Your task to perform on an android device: turn notification dots off Image 0: 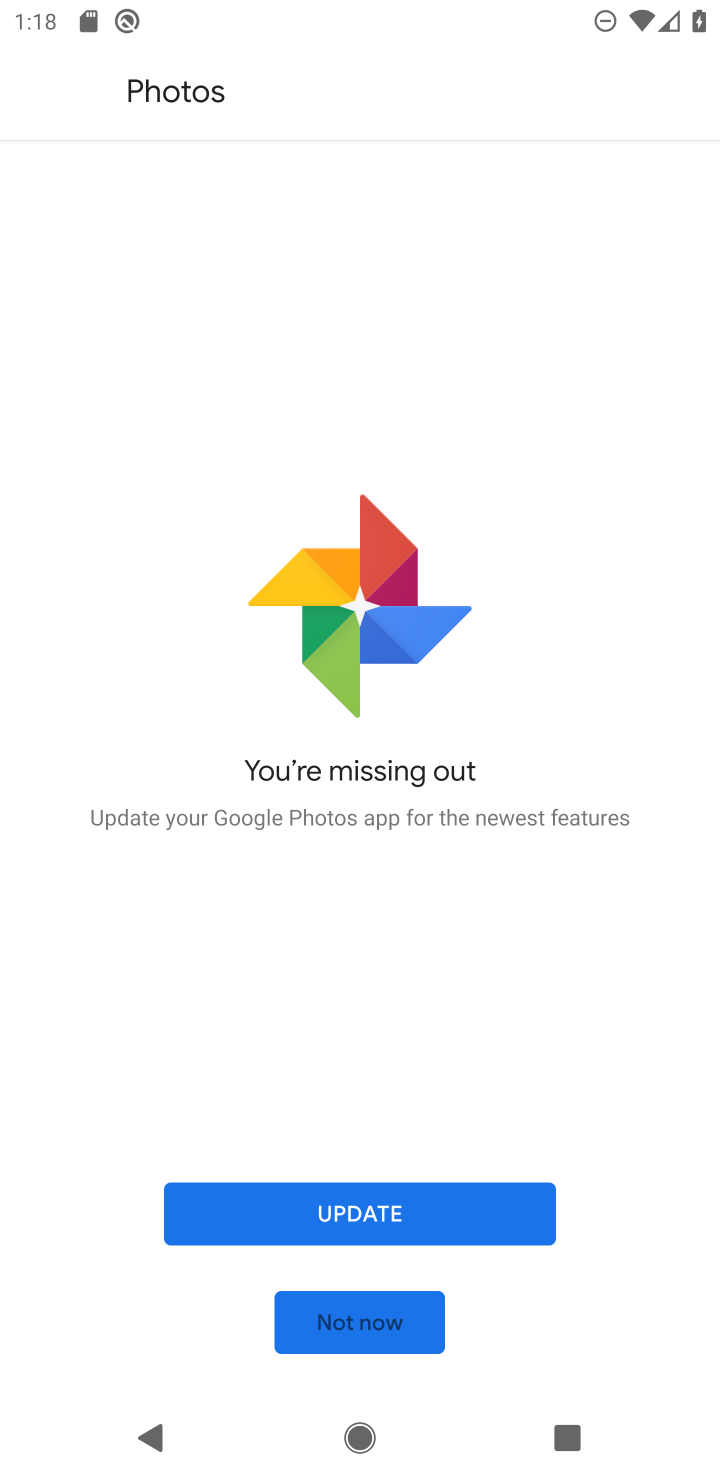
Step 0: press home button
Your task to perform on an android device: turn notification dots off Image 1: 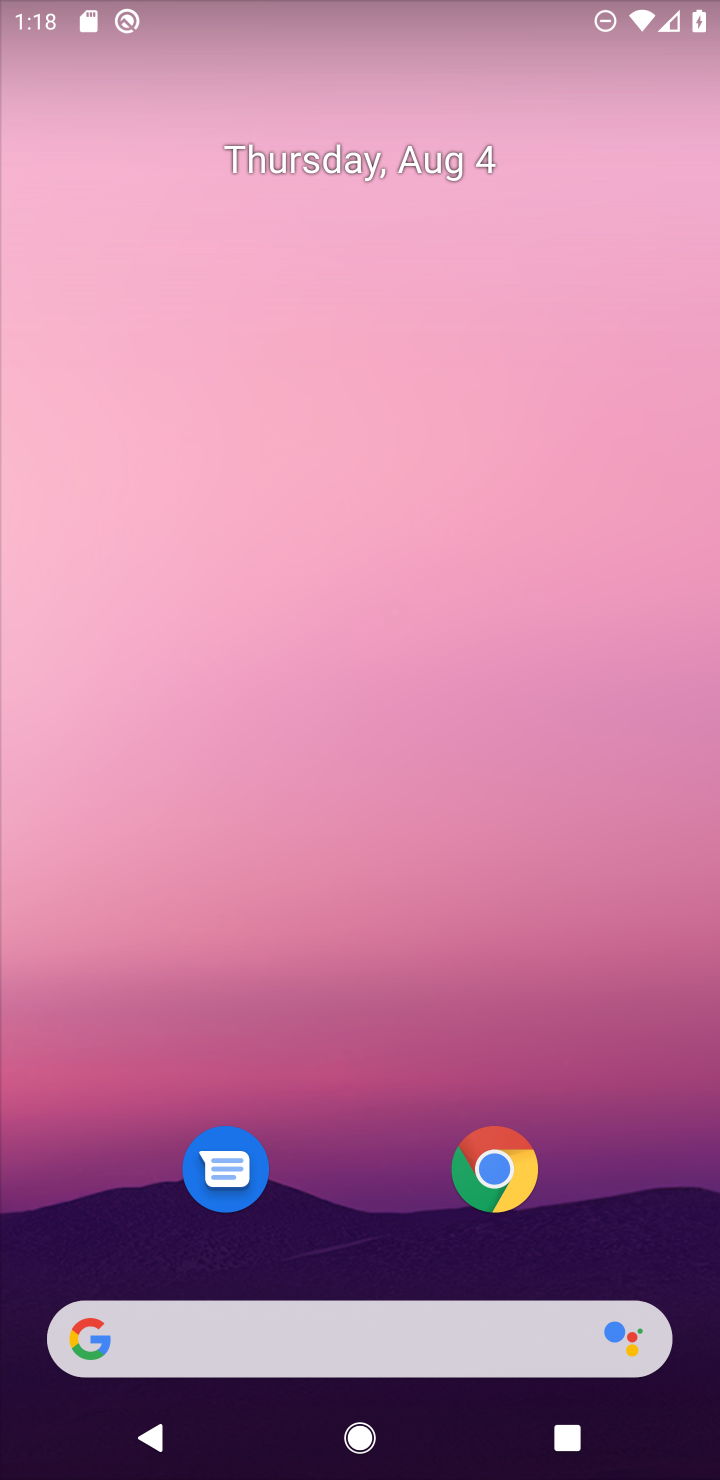
Step 1: drag from (381, 1161) to (431, 44)
Your task to perform on an android device: turn notification dots off Image 2: 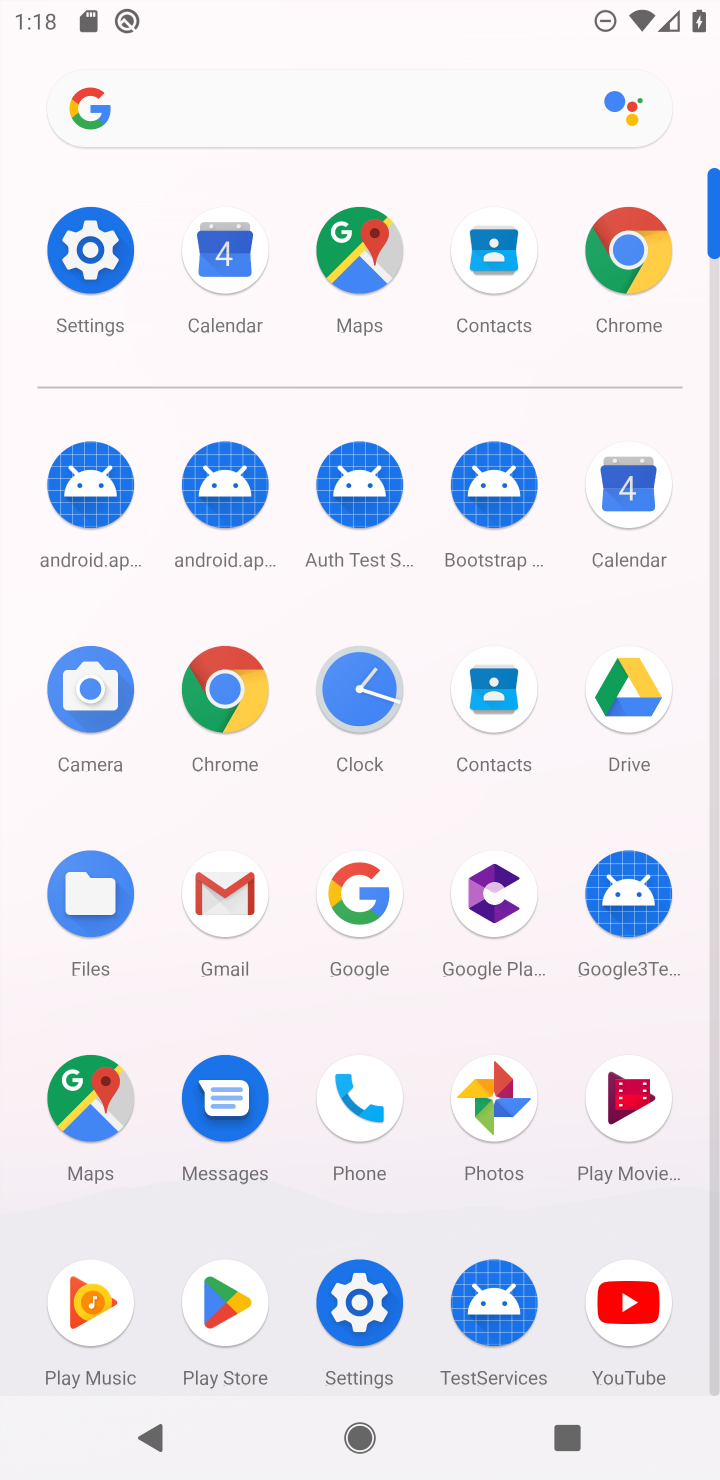
Step 2: click (93, 257)
Your task to perform on an android device: turn notification dots off Image 3: 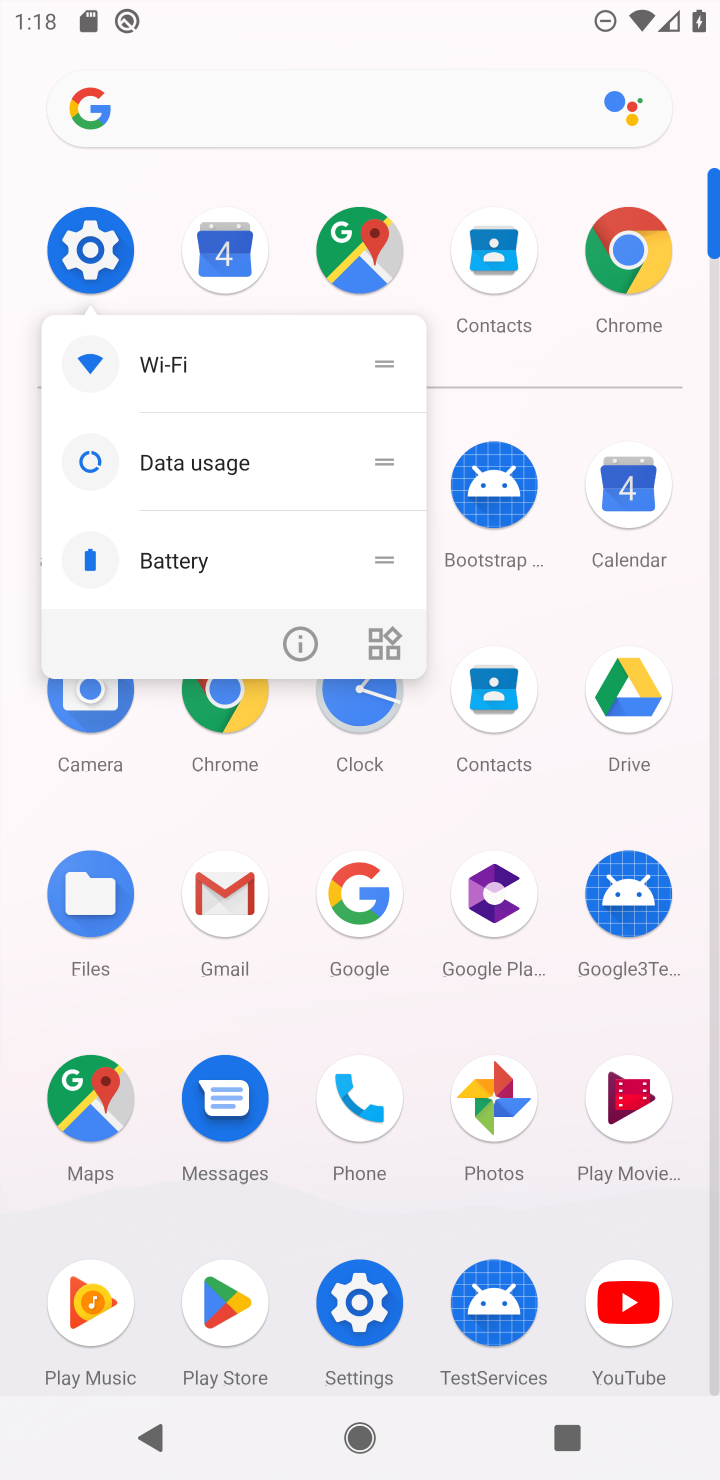
Step 3: click (93, 257)
Your task to perform on an android device: turn notification dots off Image 4: 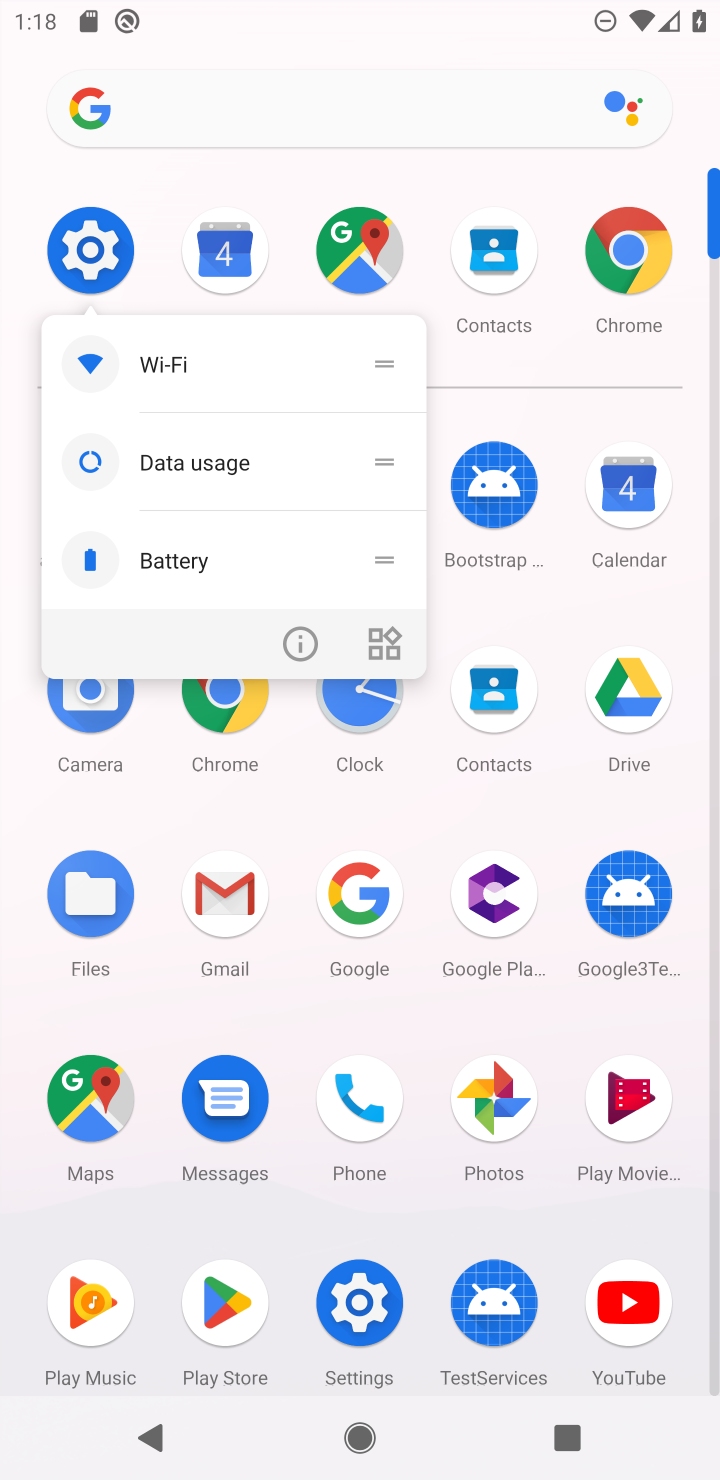
Step 4: click (93, 257)
Your task to perform on an android device: turn notification dots off Image 5: 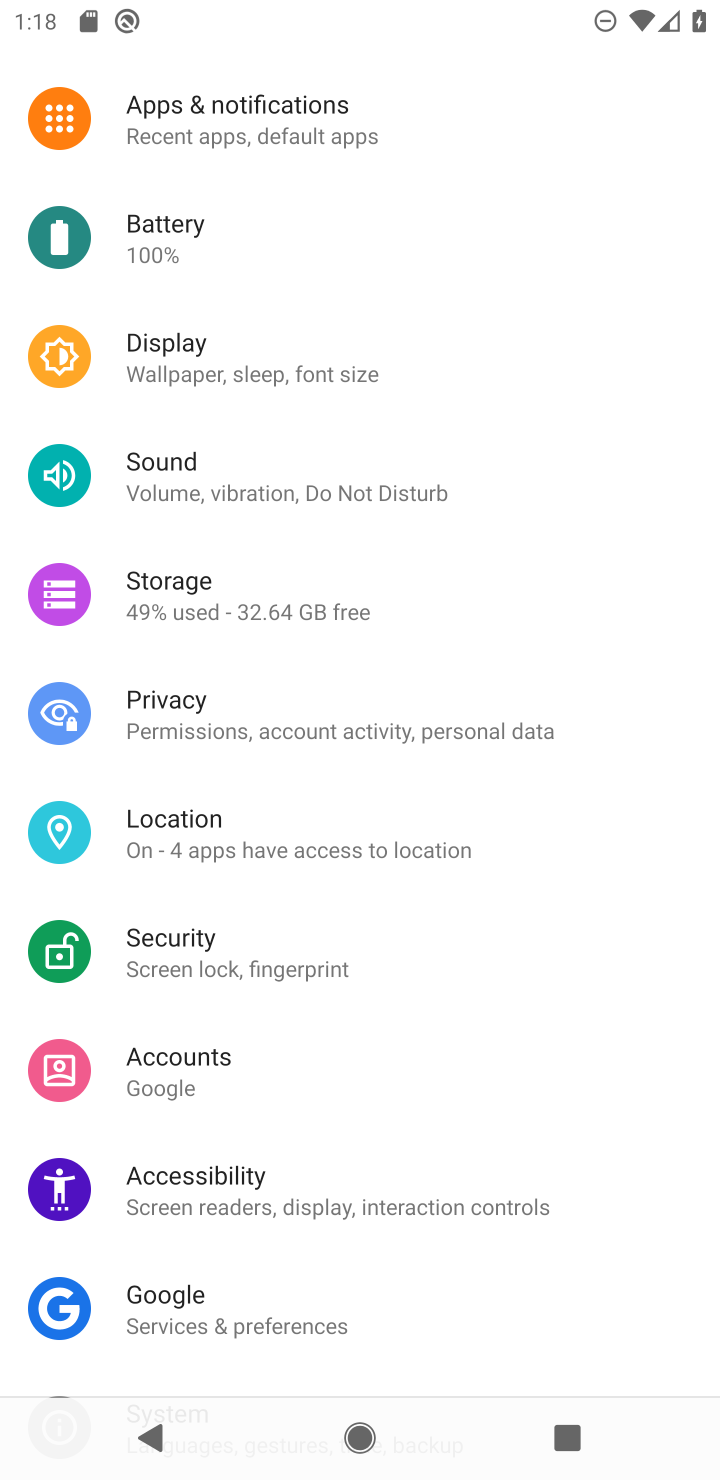
Step 5: click (220, 124)
Your task to perform on an android device: turn notification dots off Image 6: 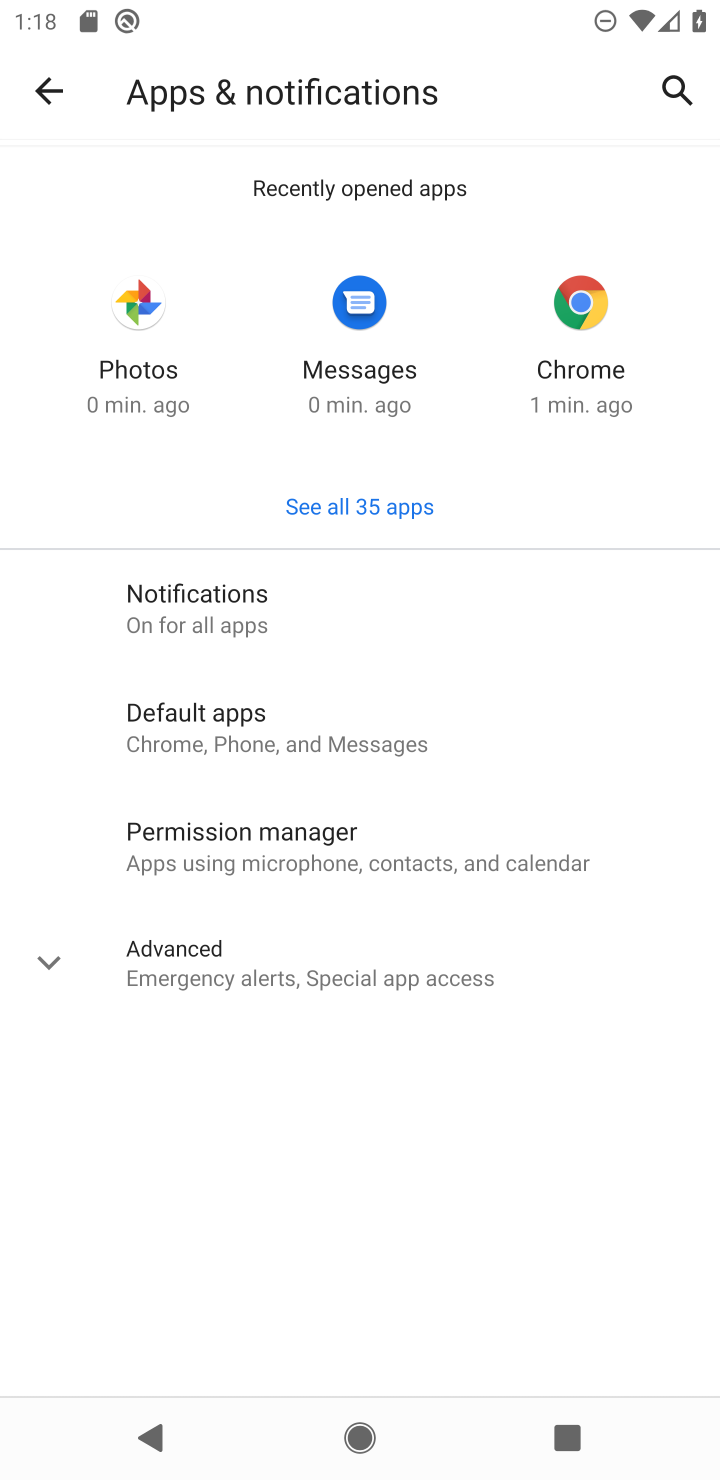
Step 6: click (207, 604)
Your task to perform on an android device: turn notification dots off Image 7: 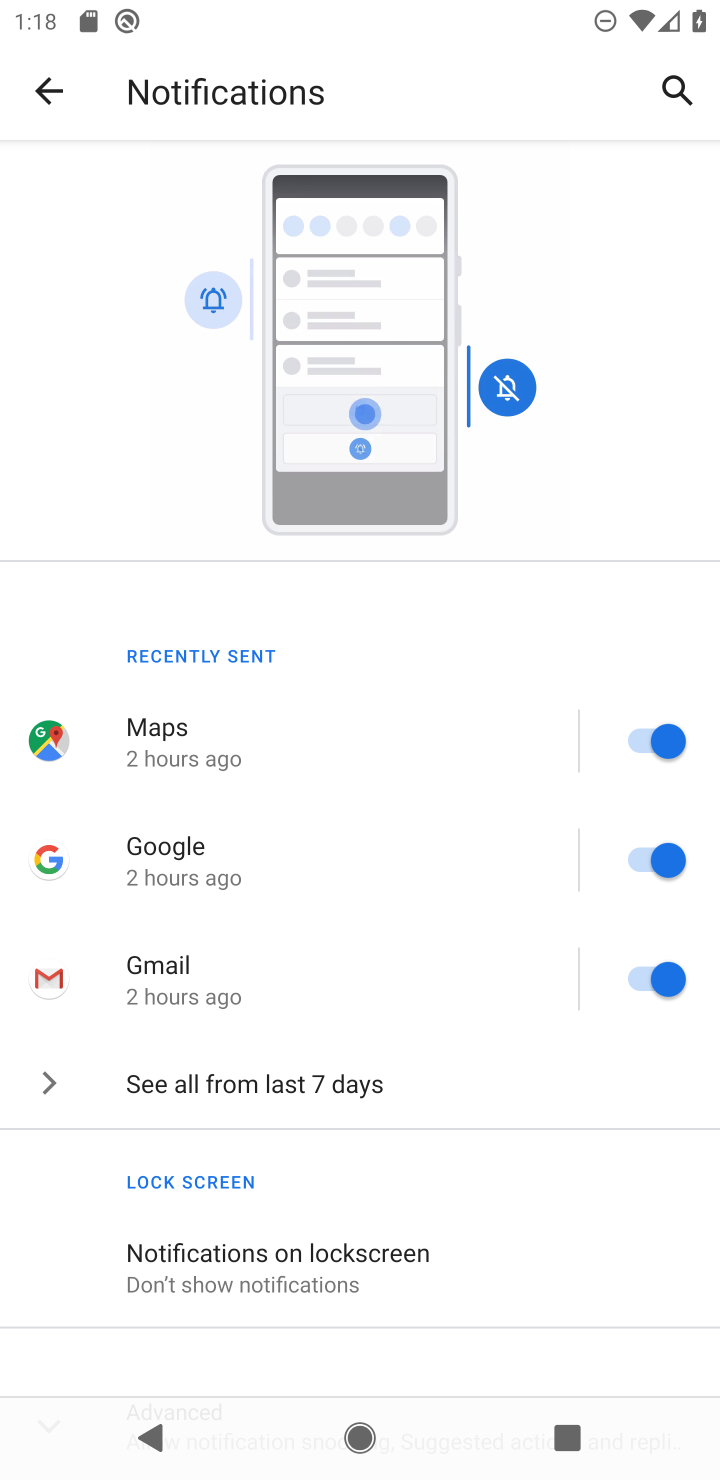
Step 7: drag from (401, 1089) to (366, 428)
Your task to perform on an android device: turn notification dots off Image 8: 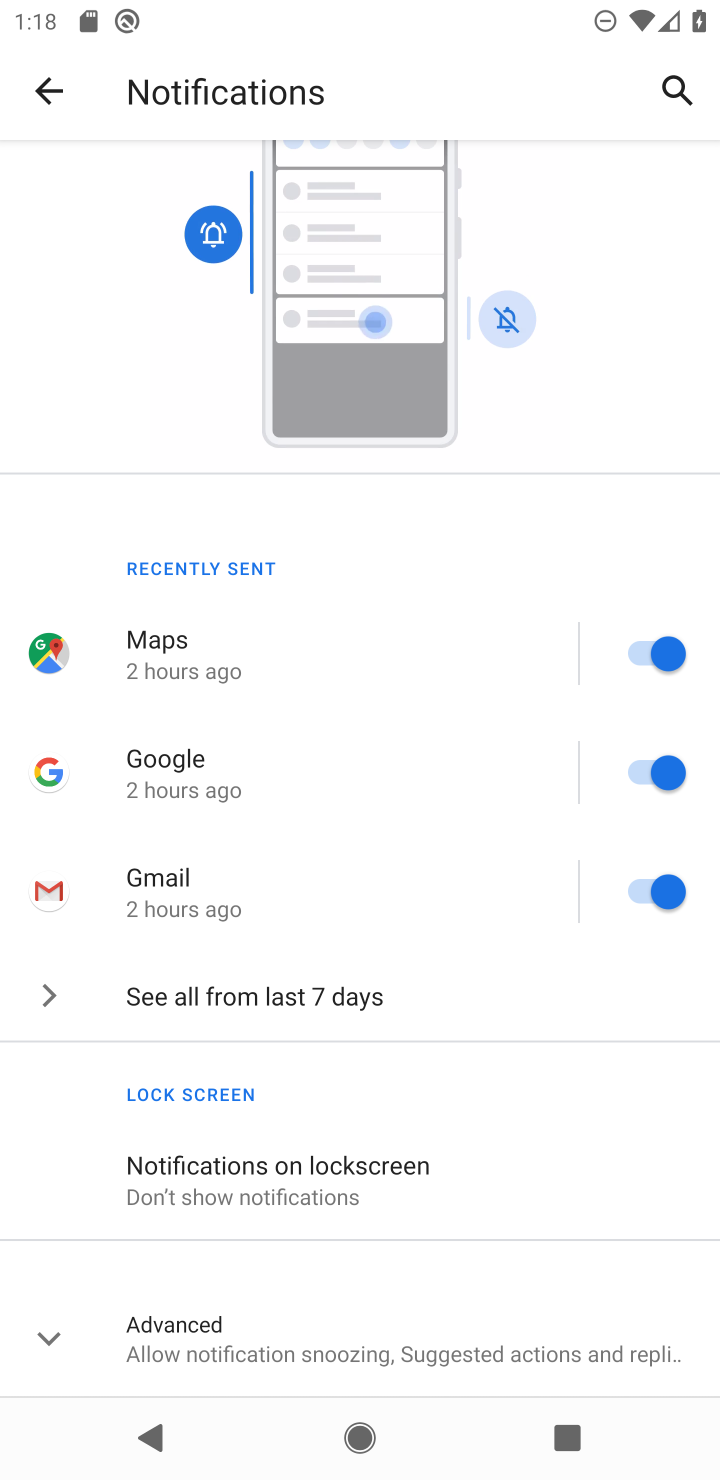
Step 8: click (53, 1345)
Your task to perform on an android device: turn notification dots off Image 9: 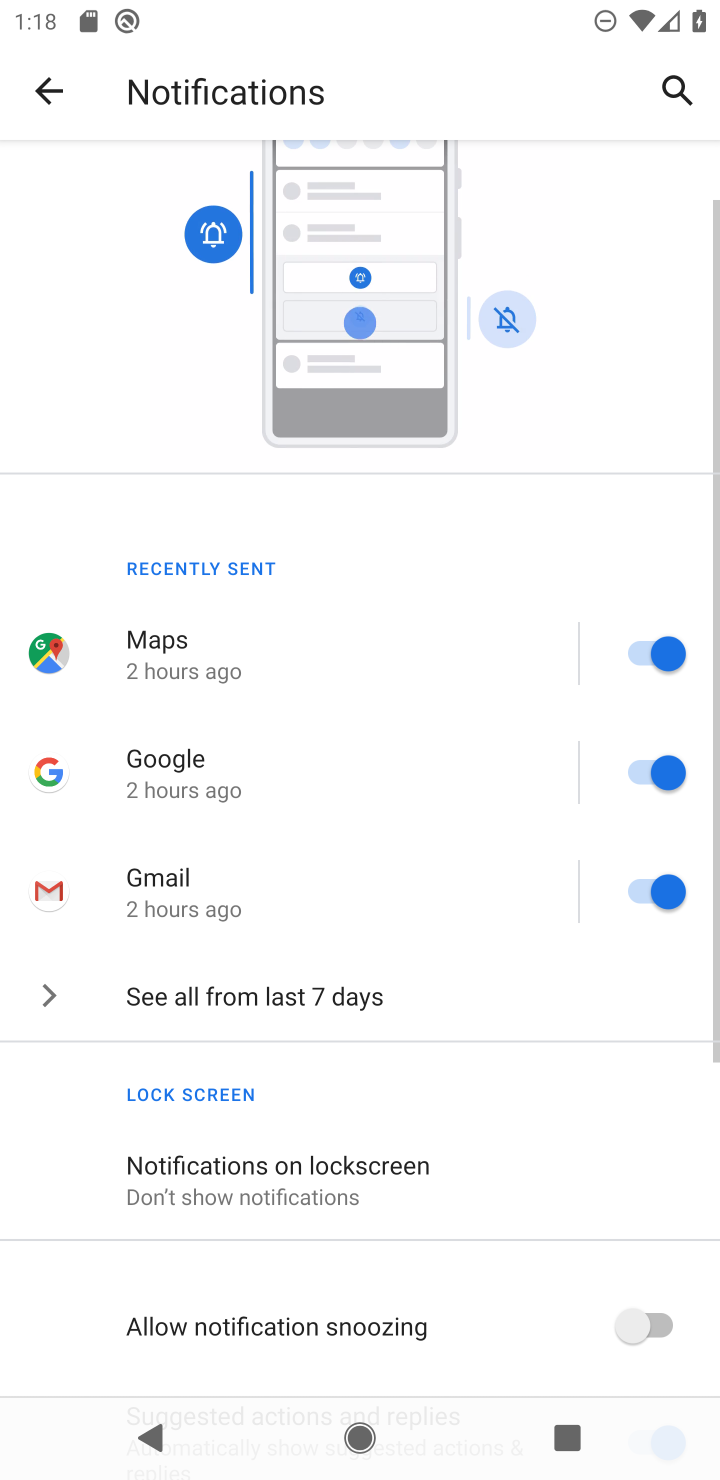
Step 9: drag from (333, 1319) to (310, 775)
Your task to perform on an android device: turn notification dots off Image 10: 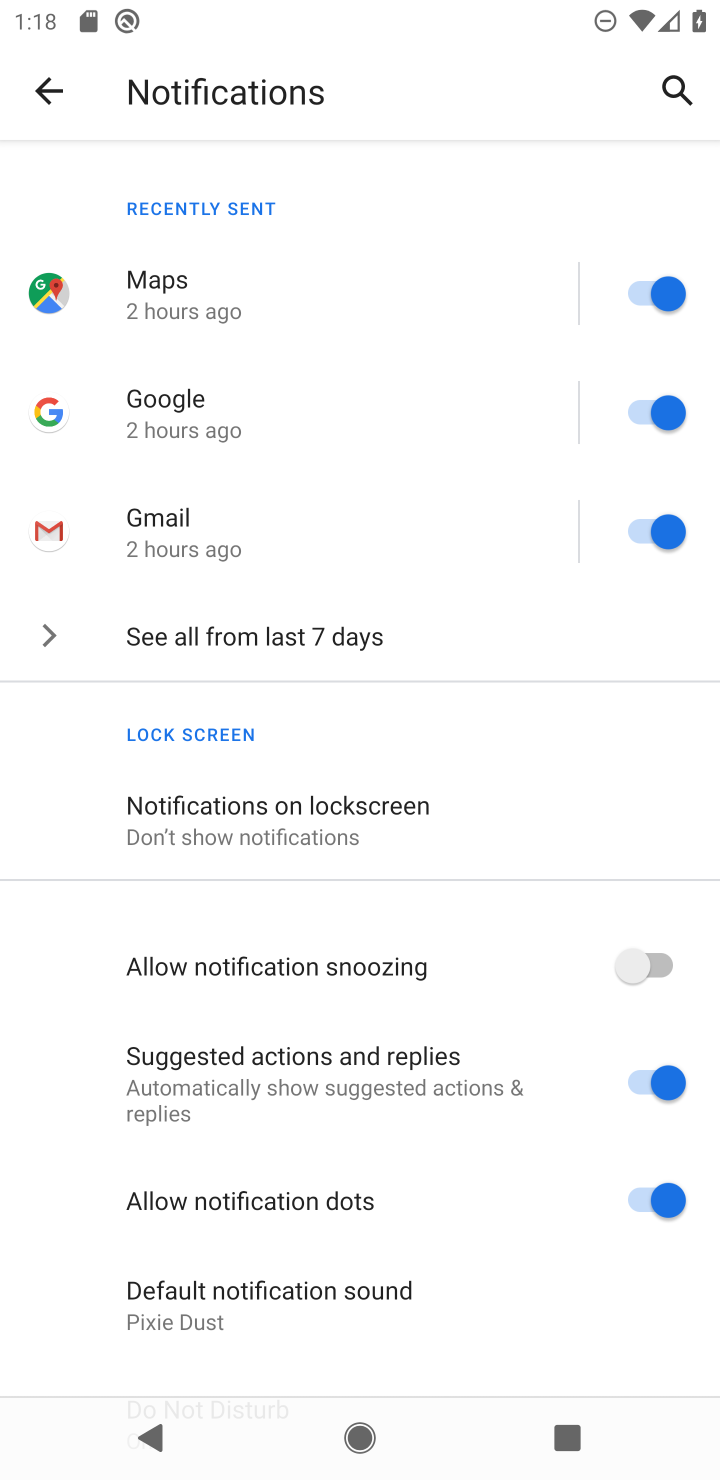
Step 10: click (666, 1204)
Your task to perform on an android device: turn notification dots off Image 11: 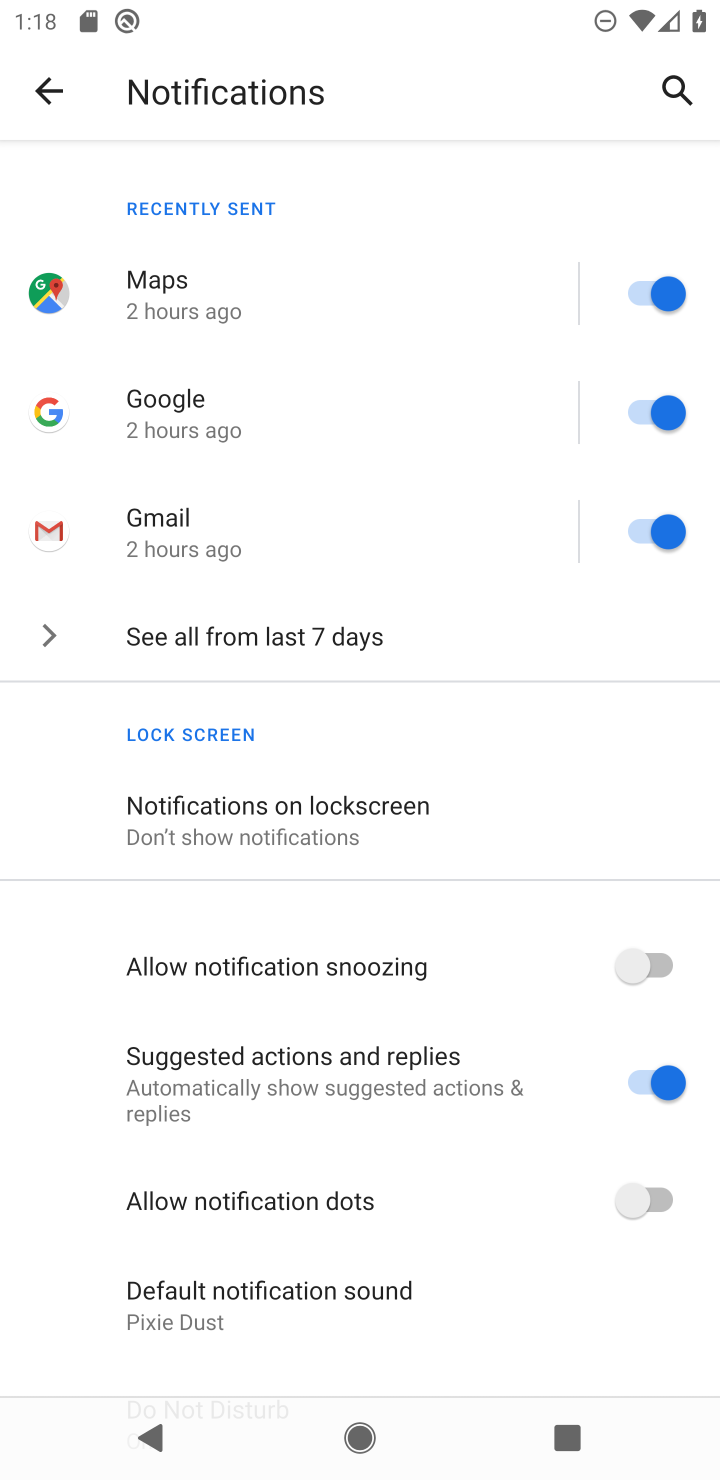
Step 11: task complete